Your task to perform on an android device: Show me the alarms in the clock app Image 0: 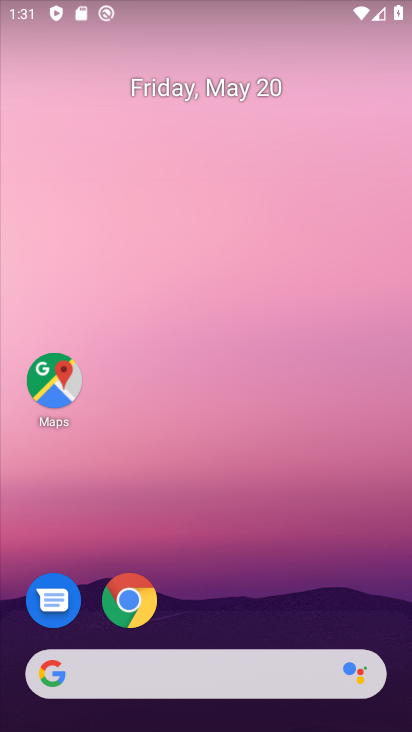
Step 0: drag from (226, 611) to (289, 8)
Your task to perform on an android device: Show me the alarms in the clock app Image 1: 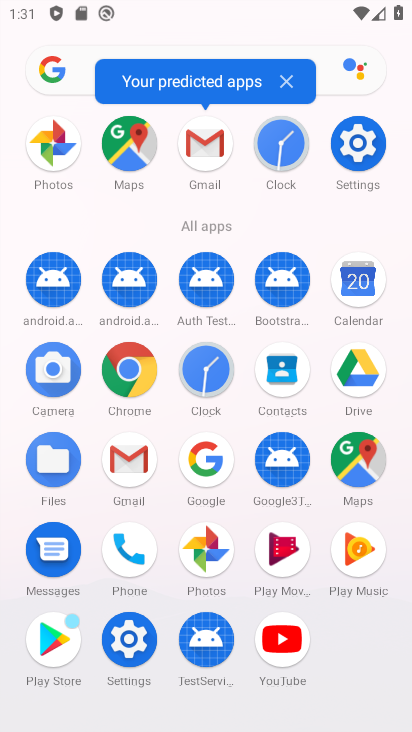
Step 1: click (219, 386)
Your task to perform on an android device: Show me the alarms in the clock app Image 2: 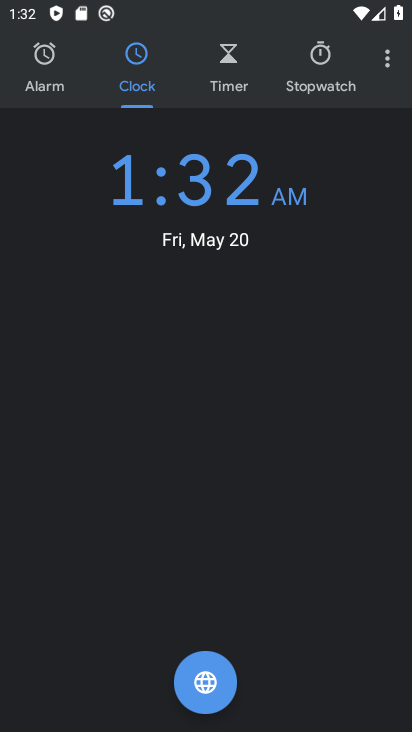
Step 2: click (58, 82)
Your task to perform on an android device: Show me the alarms in the clock app Image 3: 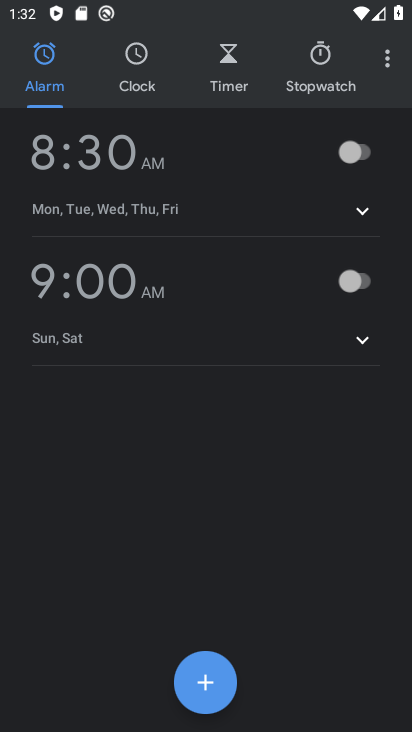
Step 3: task complete